Your task to perform on an android device: Open ESPN.com Image 0: 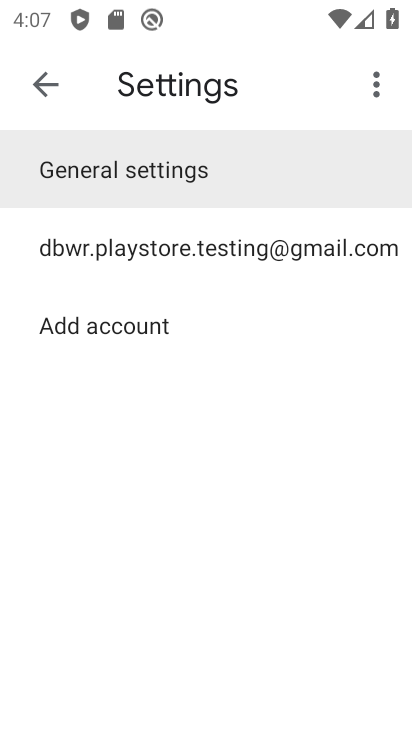
Step 0: press home button
Your task to perform on an android device: Open ESPN.com Image 1: 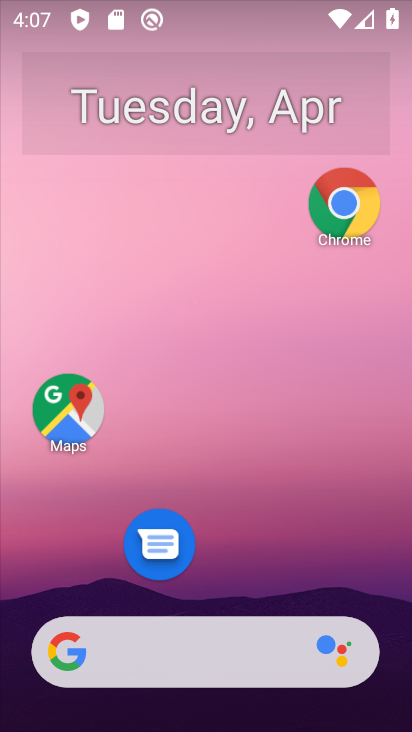
Step 1: click (337, 211)
Your task to perform on an android device: Open ESPN.com Image 2: 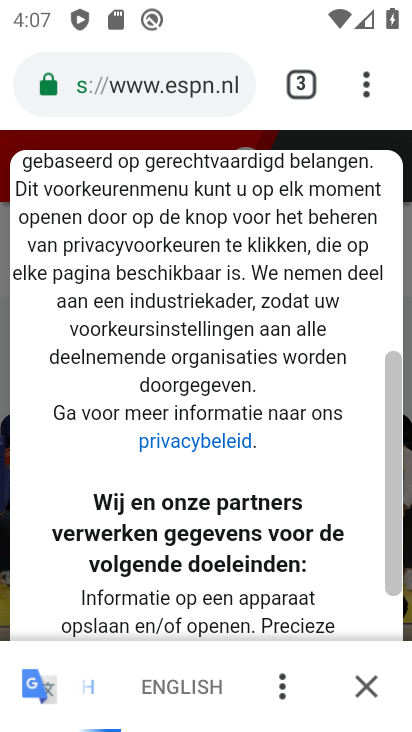
Step 2: click (367, 687)
Your task to perform on an android device: Open ESPN.com Image 3: 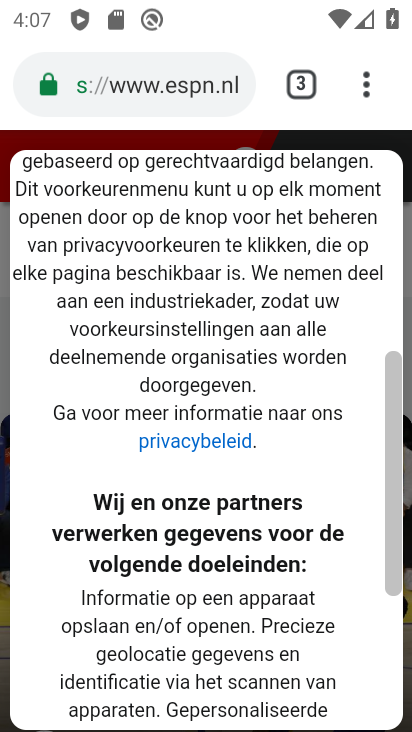
Step 3: task complete